Your task to perform on an android device: toggle notifications settings in the gmail app Image 0: 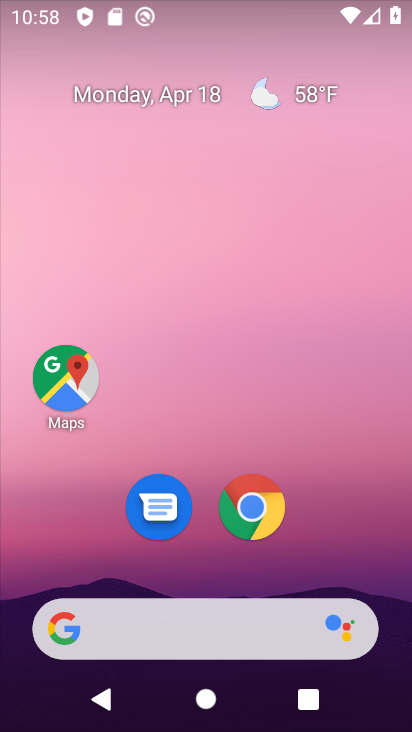
Step 0: click (194, 436)
Your task to perform on an android device: toggle notifications settings in the gmail app Image 1: 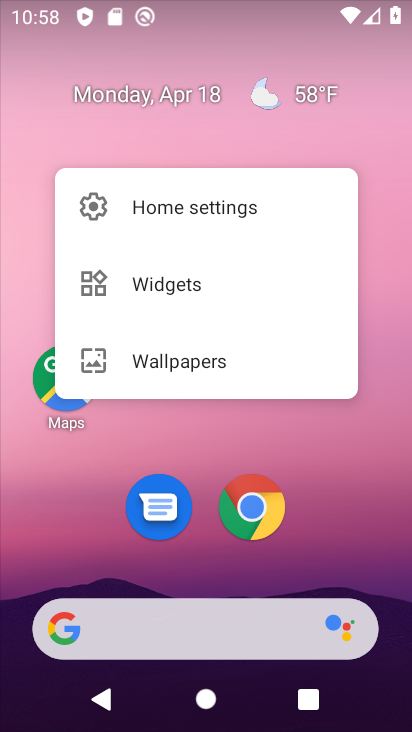
Step 1: drag from (218, 11) to (141, 728)
Your task to perform on an android device: toggle notifications settings in the gmail app Image 2: 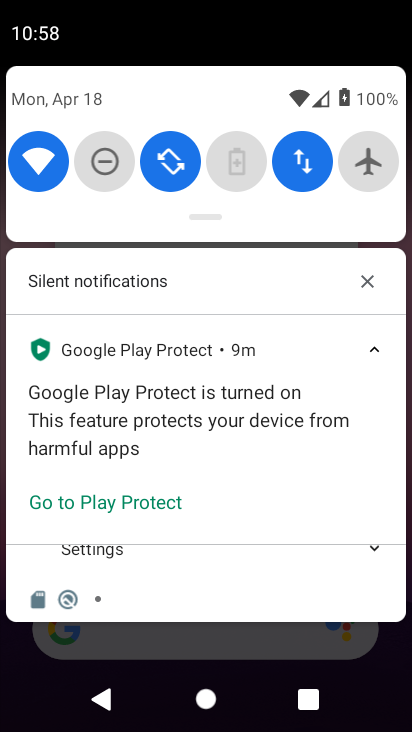
Step 2: drag from (211, 90) to (263, 653)
Your task to perform on an android device: toggle notifications settings in the gmail app Image 3: 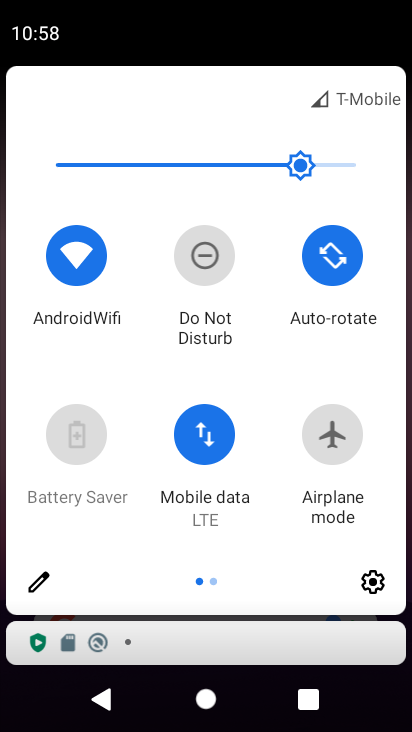
Step 3: click (369, 584)
Your task to perform on an android device: toggle notifications settings in the gmail app Image 4: 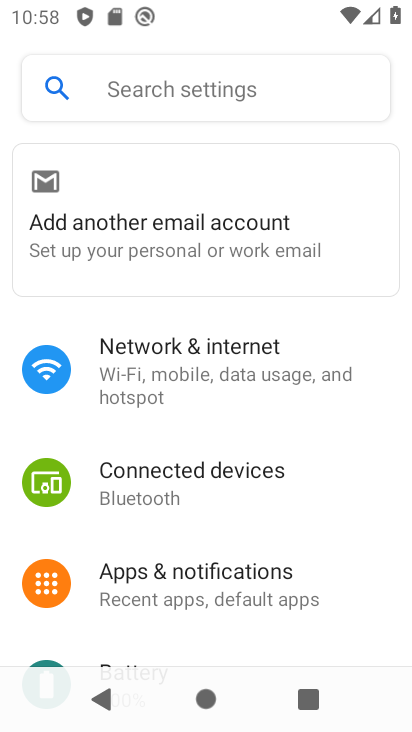
Step 4: click (123, 583)
Your task to perform on an android device: toggle notifications settings in the gmail app Image 5: 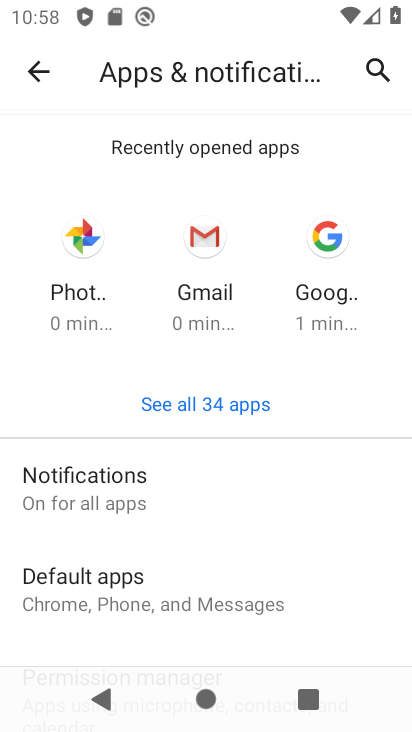
Step 5: click (210, 242)
Your task to perform on an android device: toggle notifications settings in the gmail app Image 6: 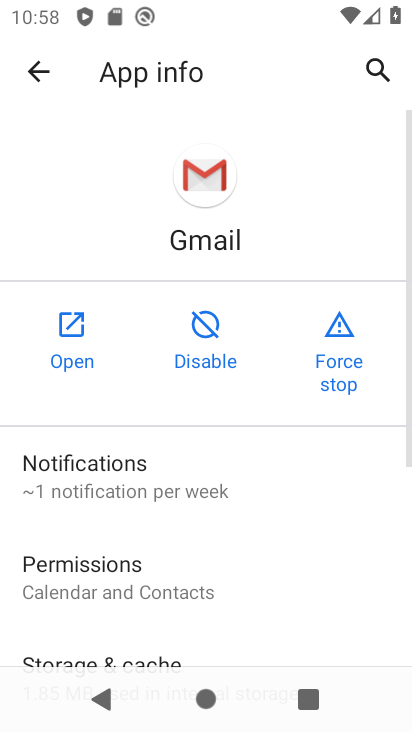
Step 6: click (183, 474)
Your task to perform on an android device: toggle notifications settings in the gmail app Image 7: 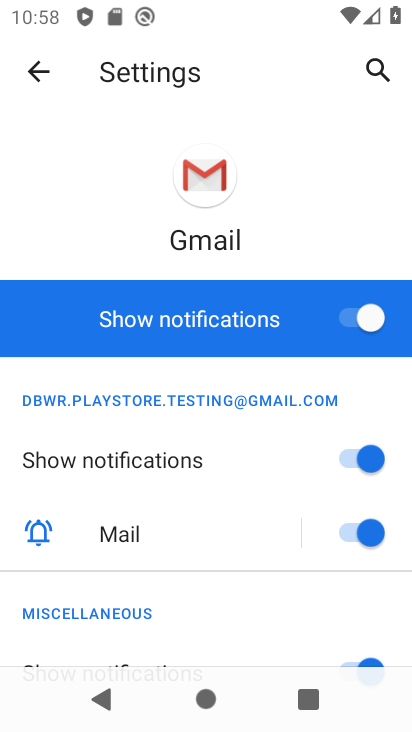
Step 7: click (371, 316)
Your task to perform on an android device: toggle notifications settings in the gmail app Image 8: 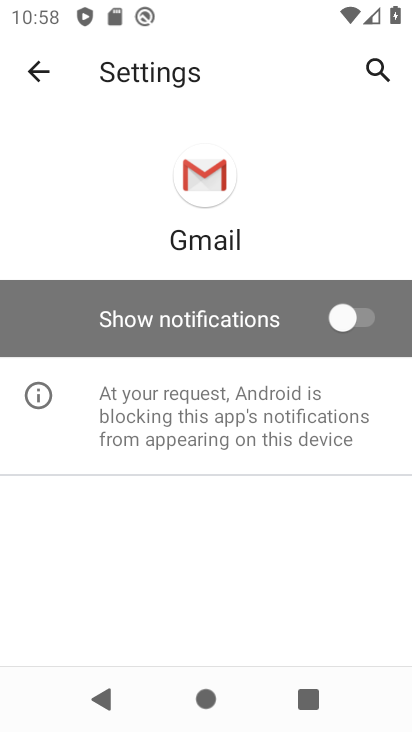
Step 8: click (371, 316)
Your task to perform on an android device: toggle notifications settings in the gmail app Image 9: 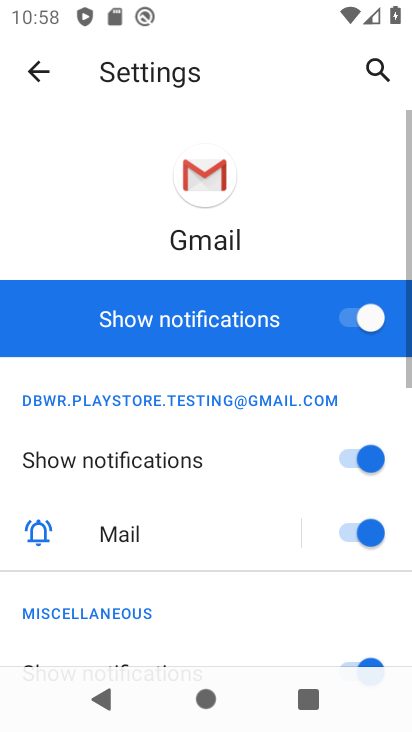
Step 9: click (371, 316)
Your task to perform on an android device: toggle notifications settings in the gmail app Image 10: 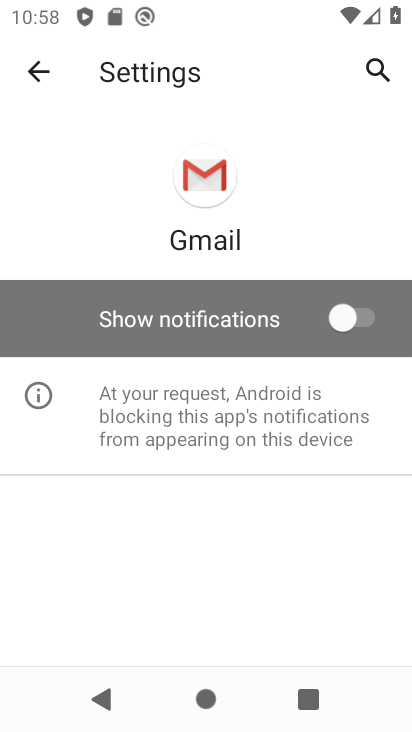
Step 10: task complete